Your task to perform on an android device: toggle data saver in the chrome app Image 0: 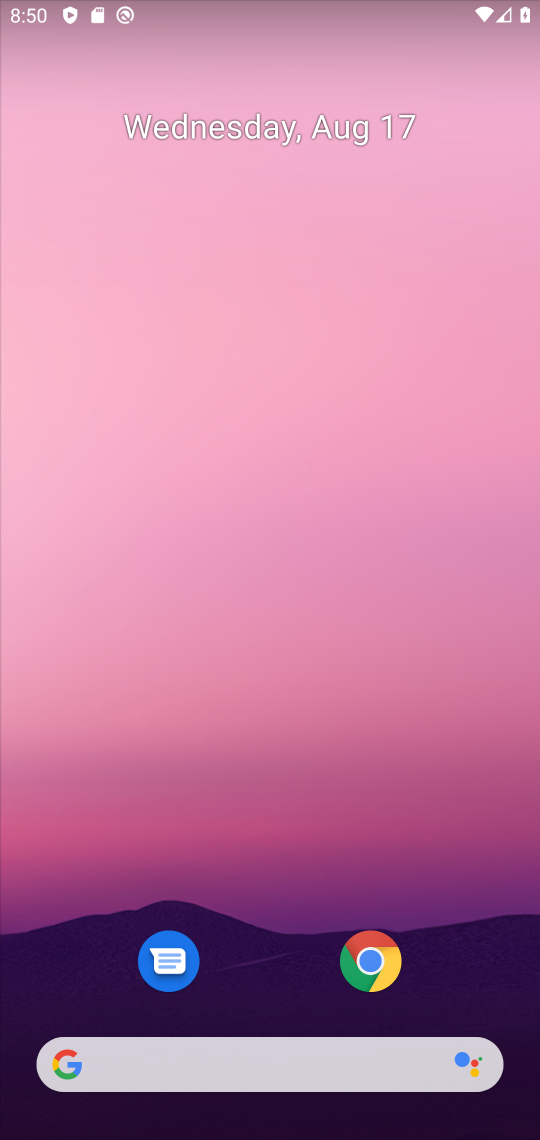
Step 0: drag from (265, 927) to (438, 107)
Your task to perform on an android device: toggle data saver in the chrome app Image 1: 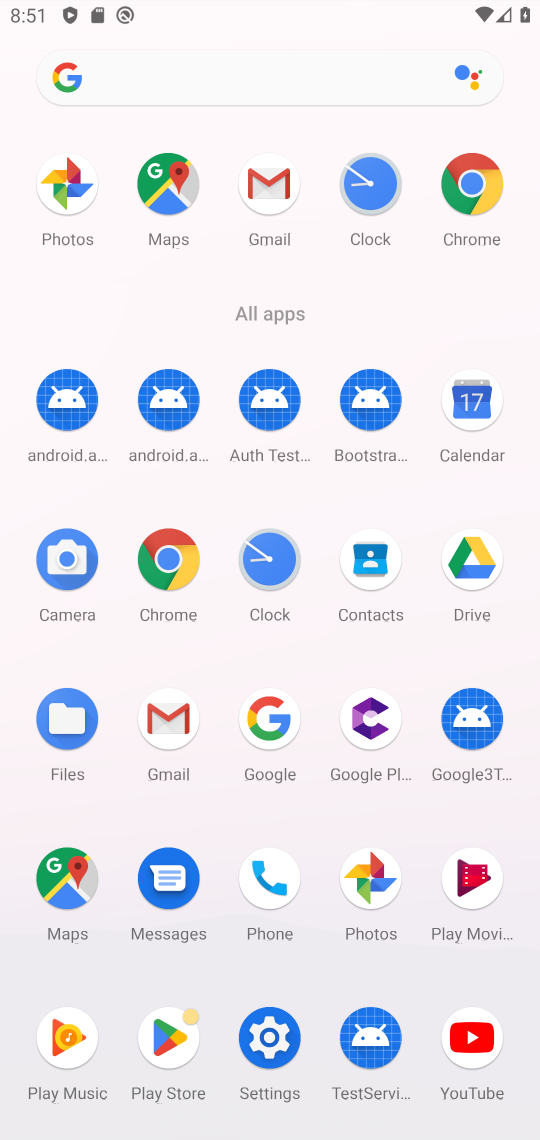
Step 1: click (166, 556)
Your task to perform on an android device: toggle data saver in the chrome app Image 2: 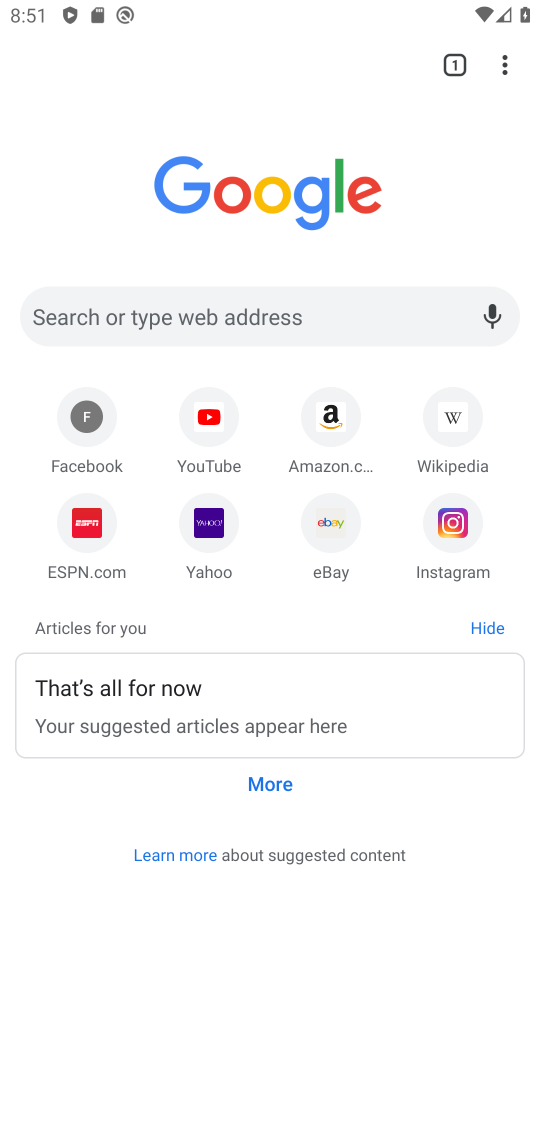
Step 2: drag from (511, 53) to (270, 622)
Your task to perform on an android device: toggle data saver in the chrome app Image 3: 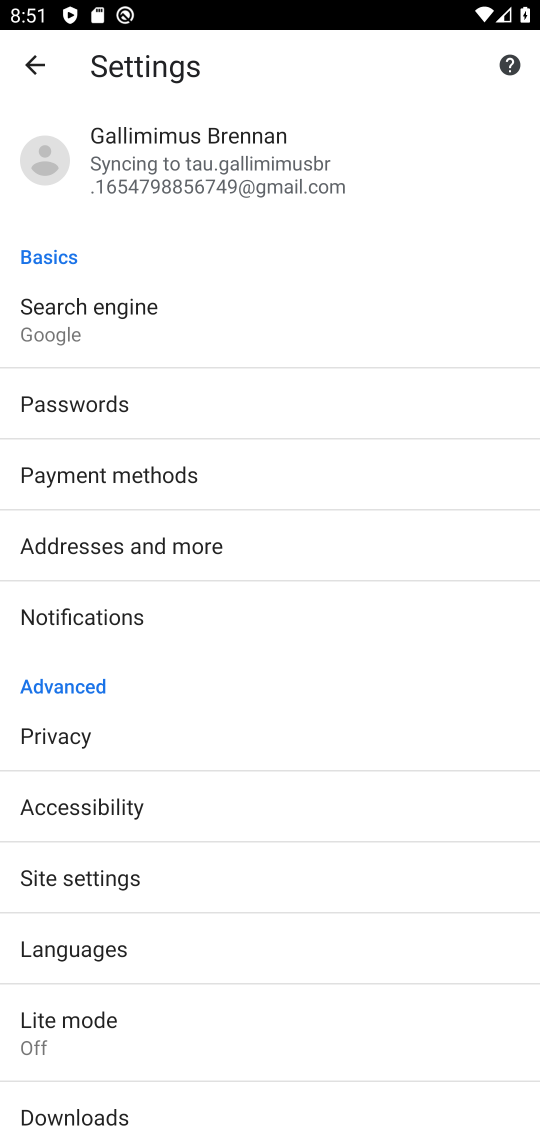
Step 3: drag from (314, 883) to (394, 197)
Your task to perform on an android device: toggle data saver in the chrome app Image 4: 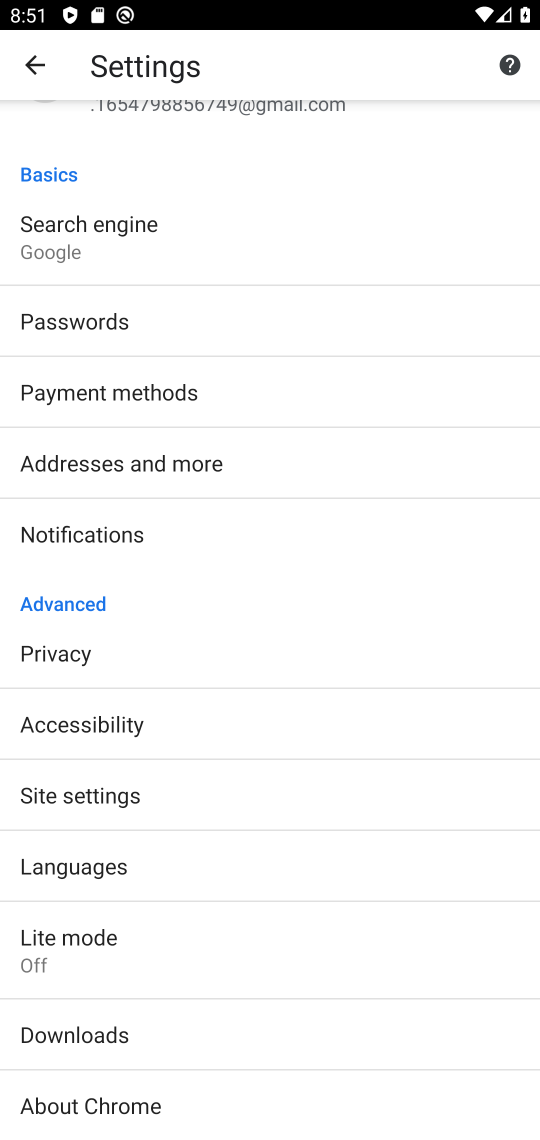
Step 4: click (102, 955)
Your task to perform on an android device: toggle data saver in the chrome app Image 5: 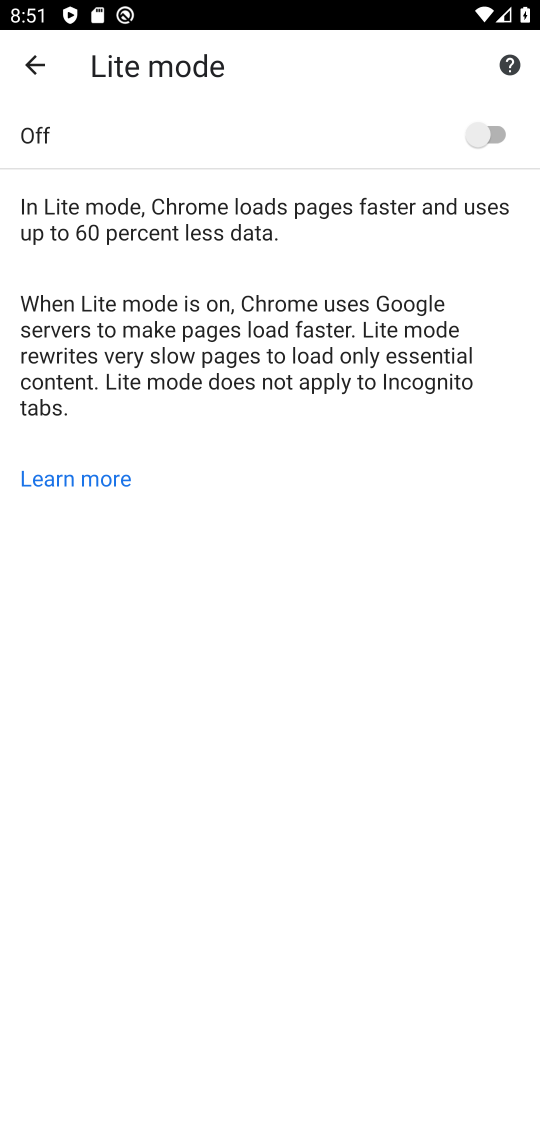
Step 5: click (501, 125)
Your task to perform on an android device: toggle data saver in the chrome app Image 6: 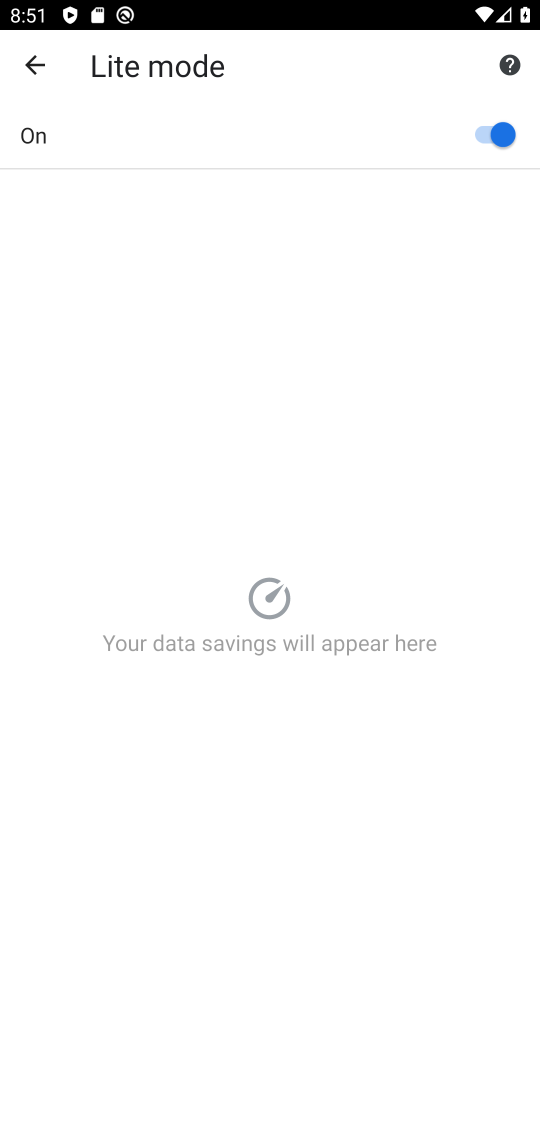
Step 6: task complete